Your task to perform on an android device: turn notification dots on Image 0: 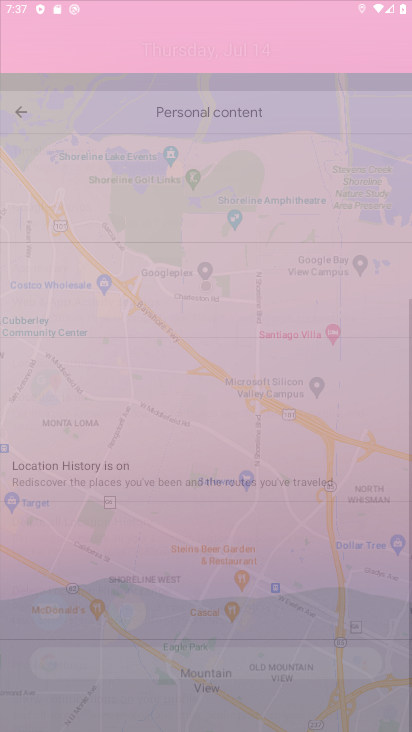
Step 0: drag from (295, 688) to (379, 253)
Your task to perform on an android device: turn notification dots on Image 1: 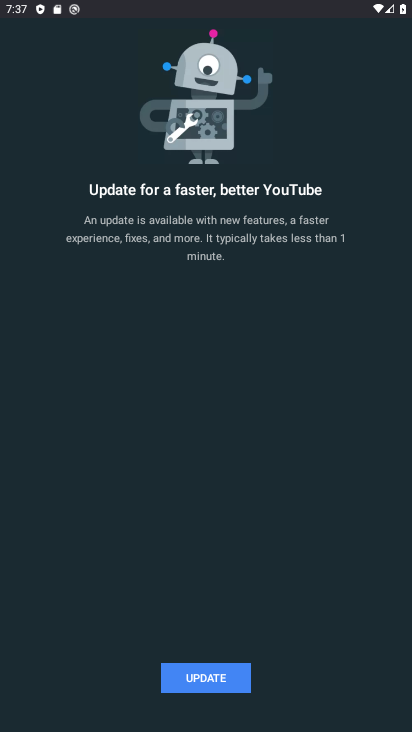
Step 1: press home button
Your task to perform on an android device: turn notification dots on Image 2: 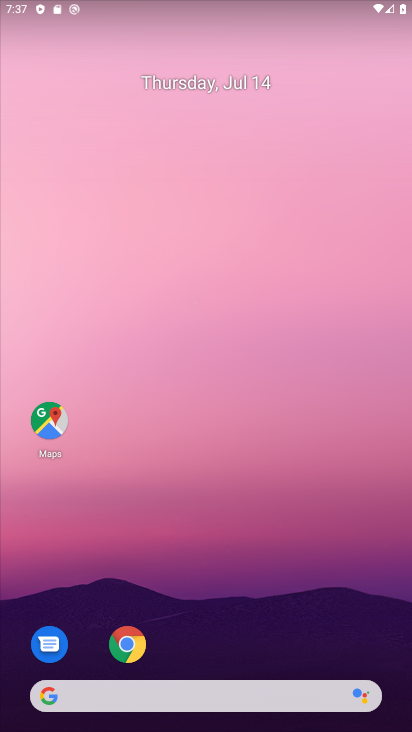
Step 2: drag from (239, 700) to (412, 158)
Your task to perform on an android device: turn notification dots on Image 3: 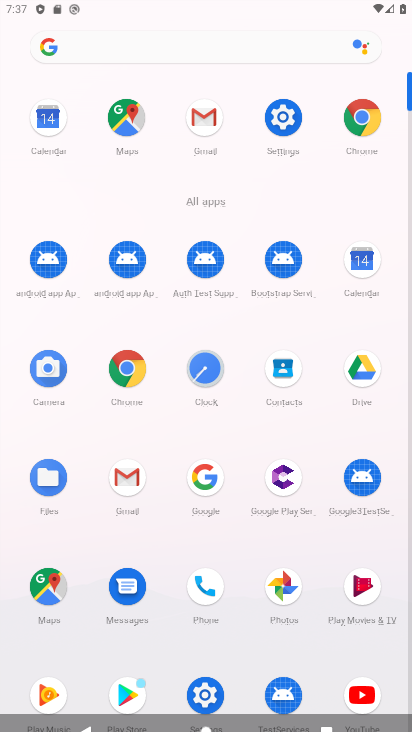
Step 3: click (278, 116)
Your task to perform on an android device: turn notification dots on Image 4: 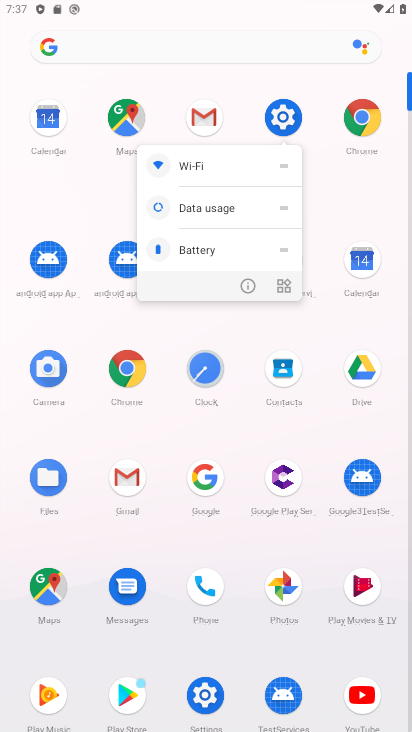
Step 4: click (285, 123)
Your task to perform on an android device: turn notification dots on Image 5: 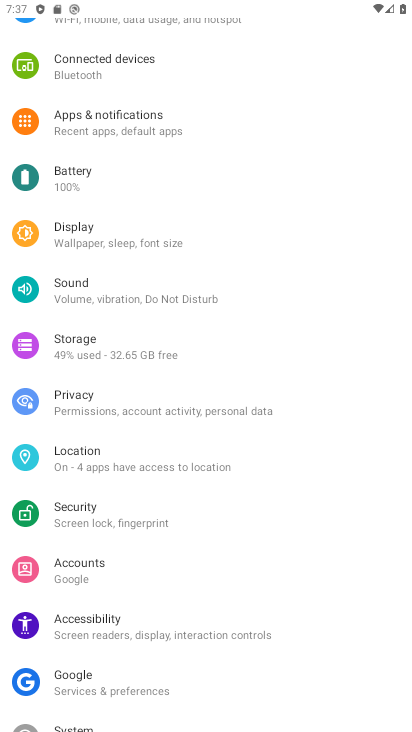
Step 5: click (122, 134)
Your task to perform on an android device: turn notification dots on Image 6: 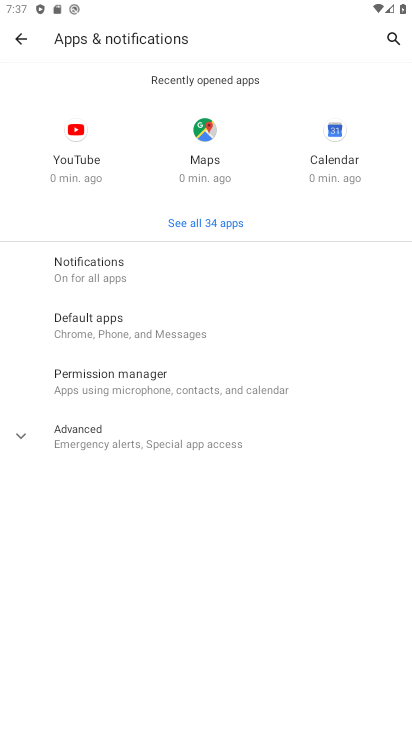
Step 6: click (107, 269)
Your task to perform on an android device: turn notification dots on Image 7: 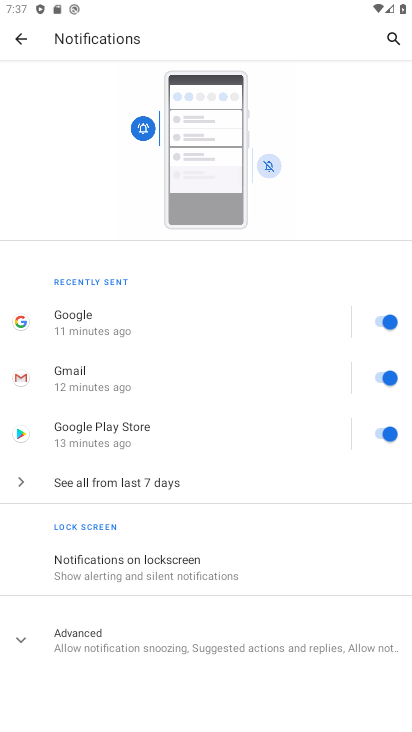
Step 7: click (143, 640)
Your task to perform on an android device: turn notification dots on Image 8: 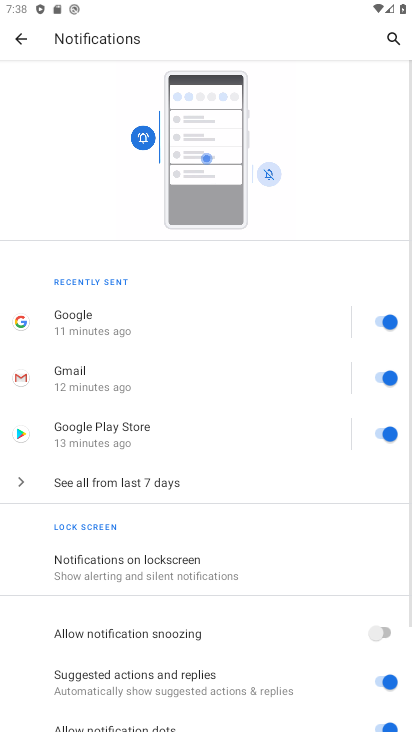
Step 8: task complete